Your task to perform on an android device: install app "PUBG MOBILE" Image 0: 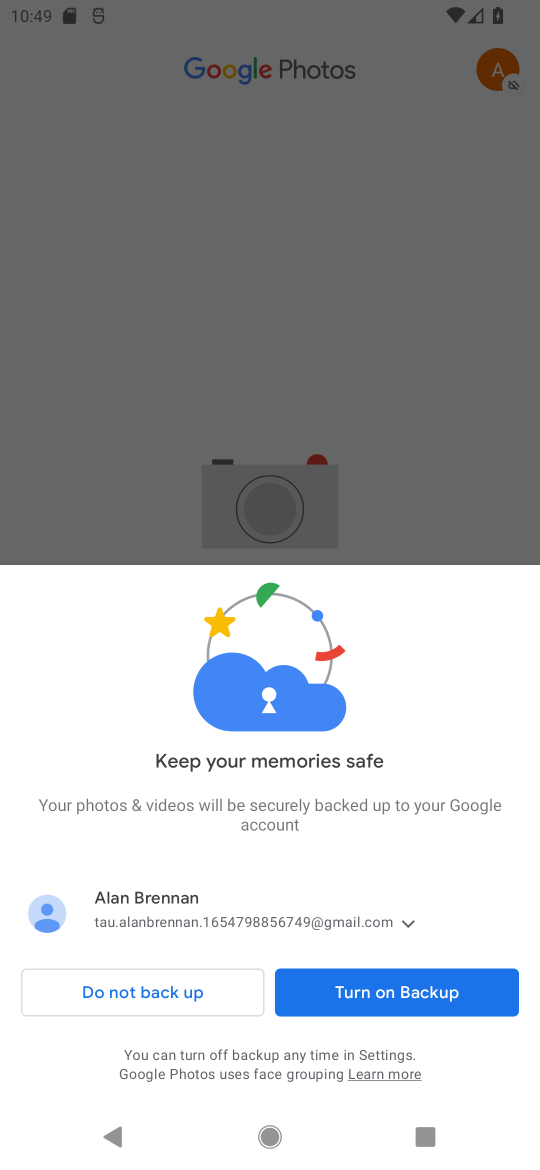
Step 0: press home button
Your task to perform on an android device: install app "PUBG MOBILE" Image 1: 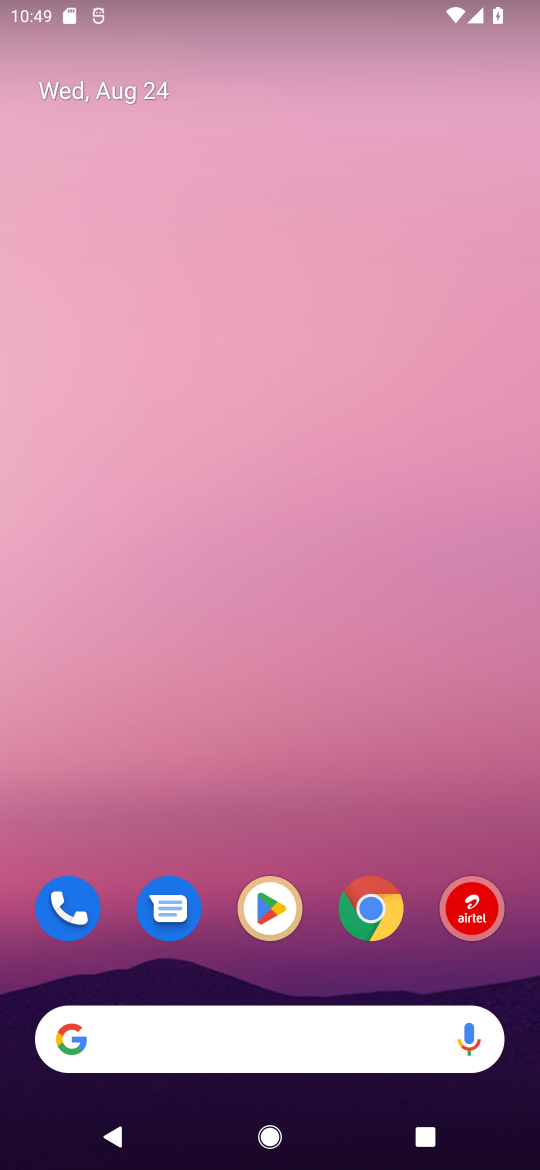
Step 1: click (250, 897)
Your task to perform on an android device: install app "PUBG MOBILE" Image 2: 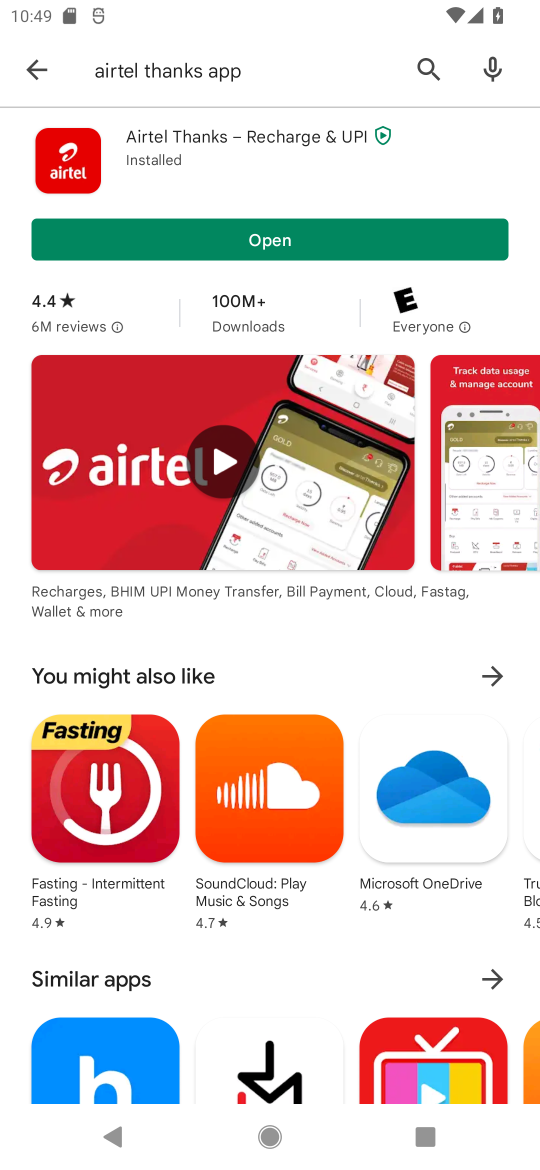
Step 2: click (32, 77)
Your task to perform on an android device: install app "PUBG MOBILE" Image 3: 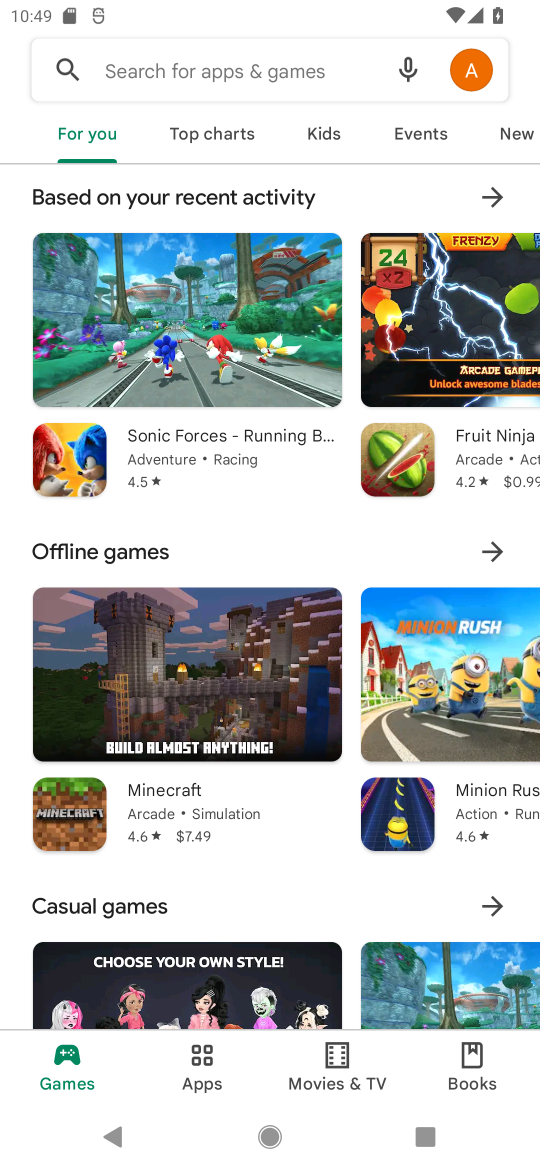
Step 3: click (106, 83)
Your task to perform on an android device: install app "PUBG MOBILE" Image 4: 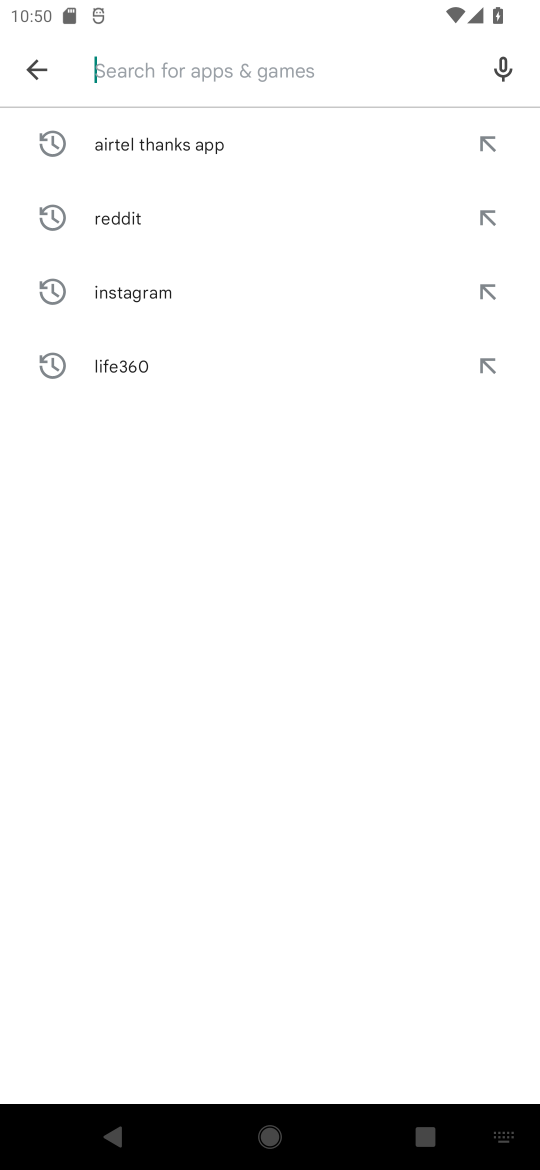
Step 4: type "PUBG MOBILE"
Your task to perform on an android device: install app "PUBG MOBILE" Image 5: 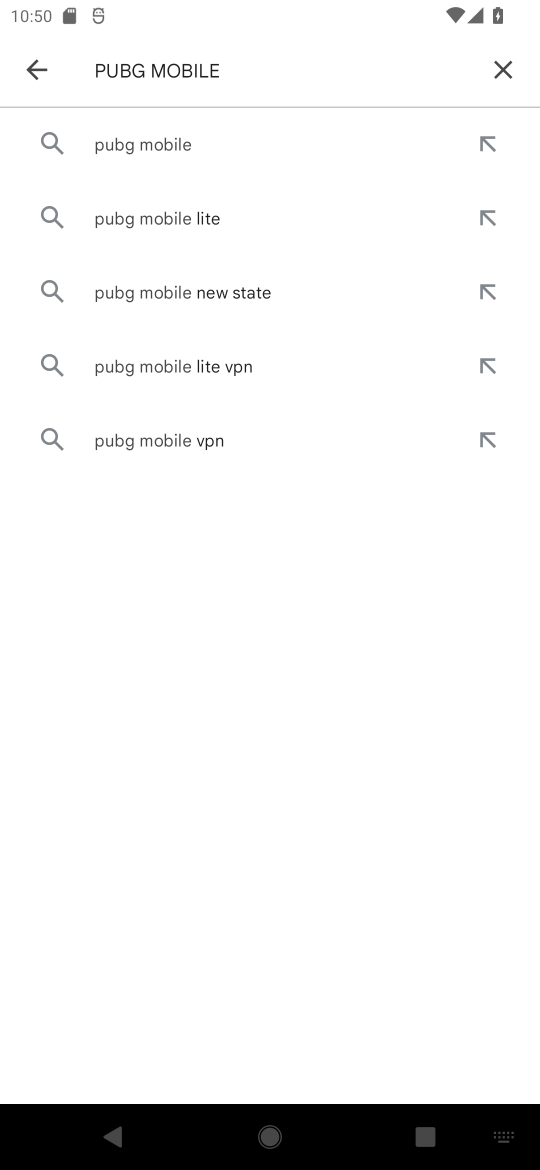
Step 5: click (146, 138)
Your task to perform on an android device: install app "PUBG MOBILE" Image 6: 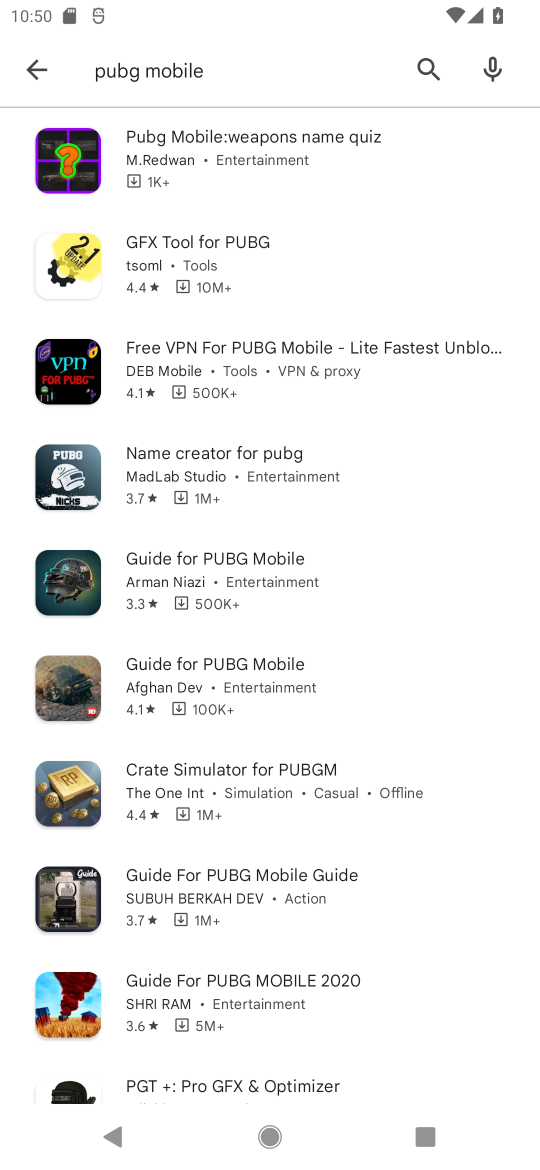
Step 6: task complete